Your task to perform on an android device: Go to display settings Image 0: 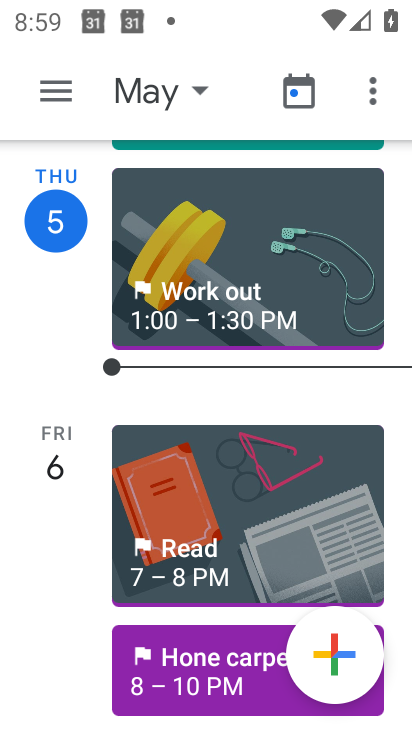
Step 0: press home button
Your task to perform on an android device: Go to display settings Image 1: 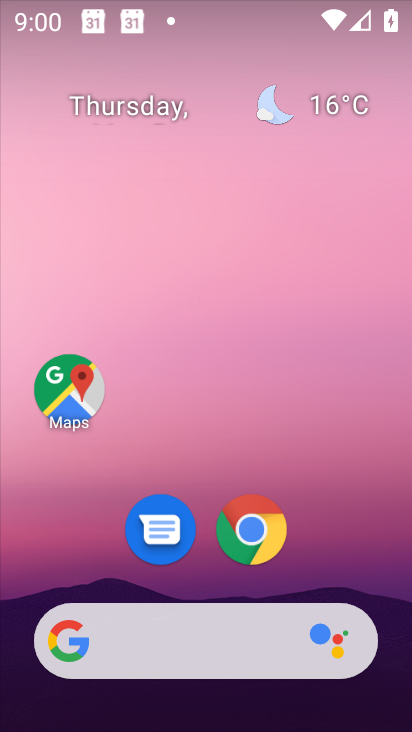
Step 1: drag from (344, 529) to (249, 44)
Your task to perform on an android device: Go to display settings Image 2: 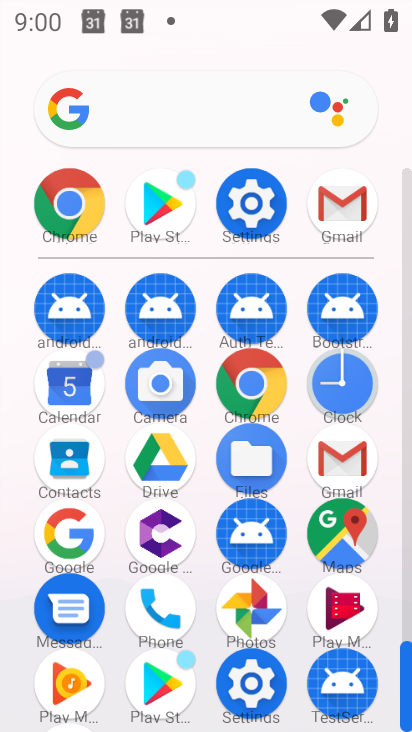
Step 2: click (256, 205)
Your task to perform on an android device: Go to display settings Image 3: 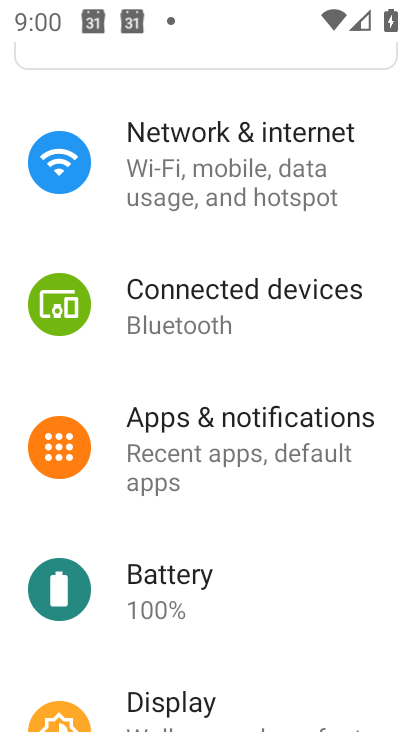
Step 3: click (167, 699)
Your task to perform on an android device: Go to display settings Image 4: 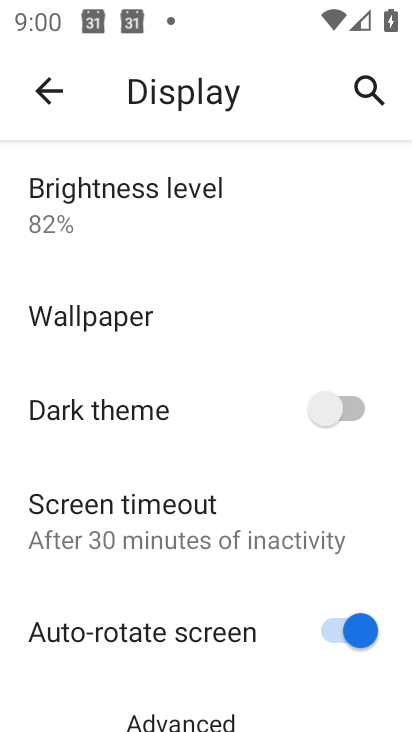
Step 4: task complete